Your task to perform on an android device: What is the news today? Image 0: 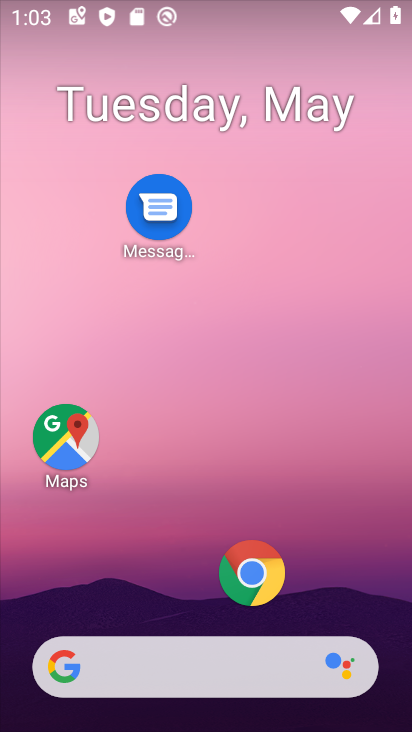
Step 0: click (200, 683)
Your task to perform on an android device: What is the news today? Image 1: 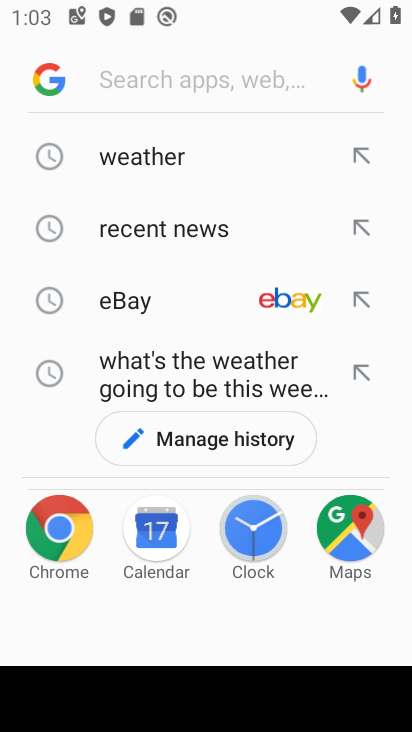
Step 1: type "news today ?"
Your task to perform on an android device: What is the news today? Image 2: 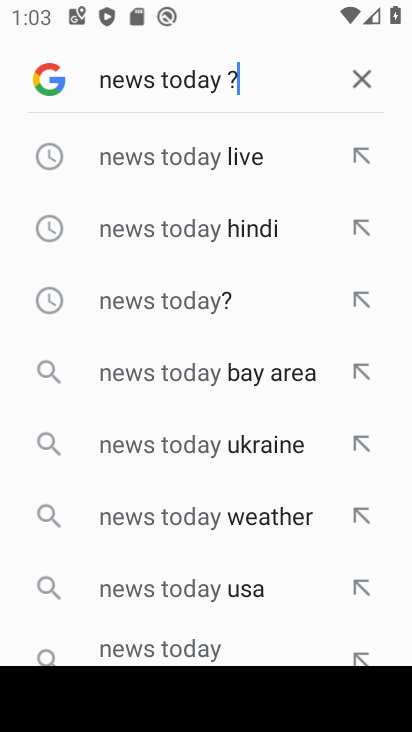
Step 2: click (211, 303)
Your task to perform on an android device: What is the news today? Image 3: 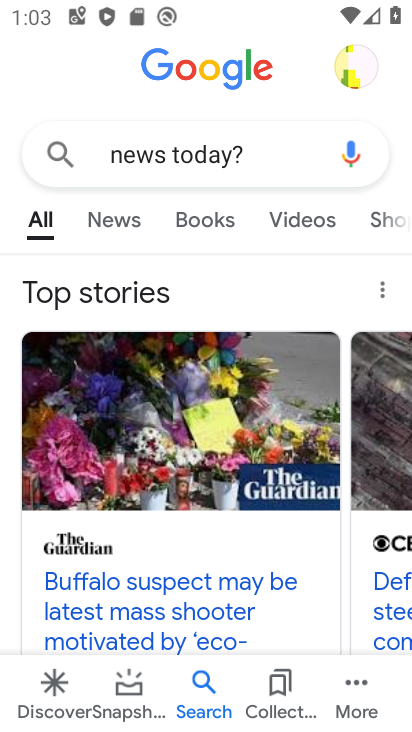
Step 3: task complete